Your task to perform on an android device: turn on translation in the chrome app Image 0: 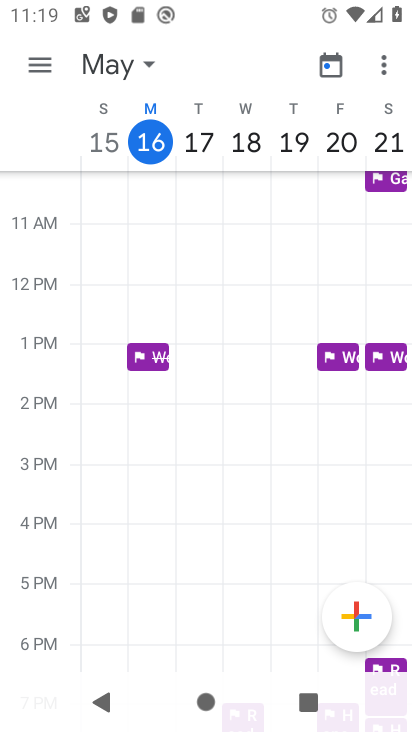
Step 0: press home button
Your task to perform on an android device: turn on translation in the chrome app Image 1: 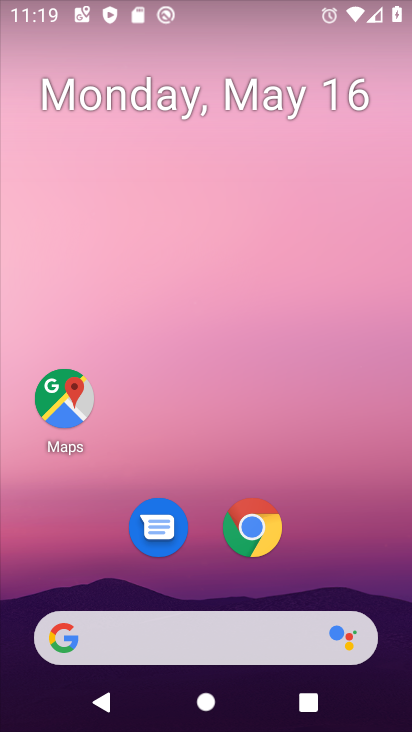
Step 1: click (257, 536)
Your task to perform on an android device: turn on translation in the chrome app Image 2: 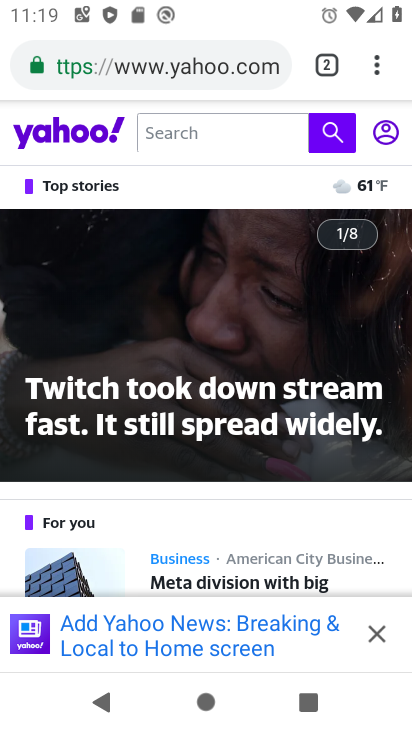
Step 2: click (385, 63)
Your task to perform on an android device: turn on translation in the chrome app Image 3: 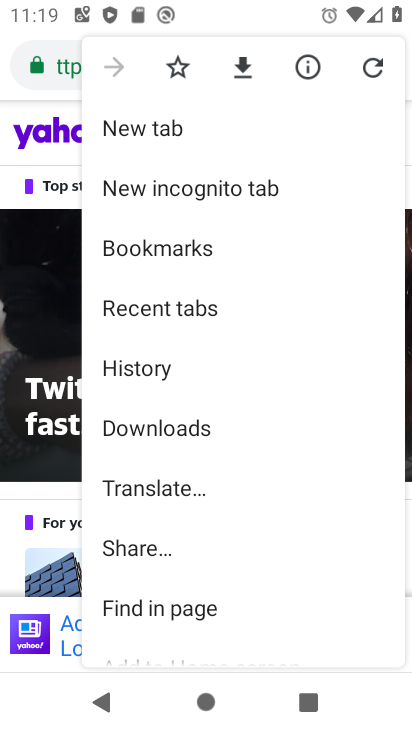
Step 3: drag from (248, 468) to (259, 194)
Your task to perform on an android device: turn on translation in the chrome app Image 4: 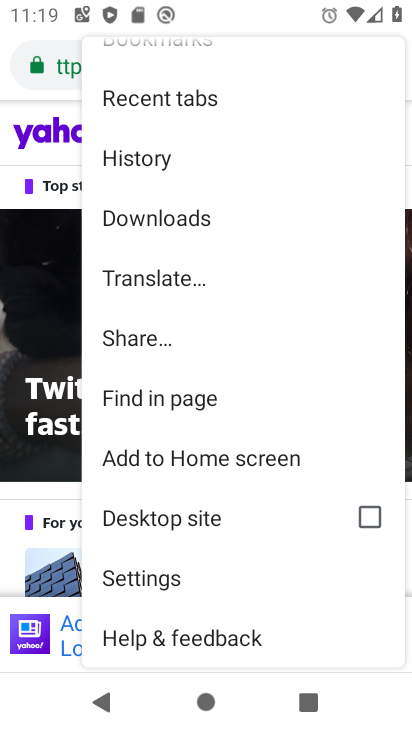
Step 4: click (147, 574)
Your task to perform on an android device: turn on translation in the chrome app Image 5: 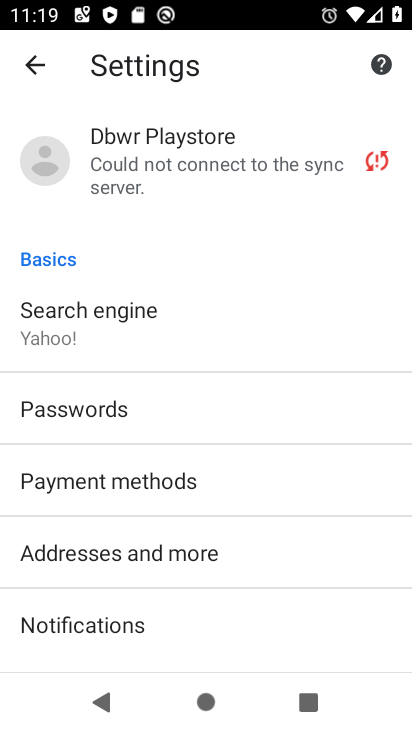
Step 5: drag from (147, 574) to (143, 181)
Your task to perform on an android device: turn on translation in the chrome app Image 6: 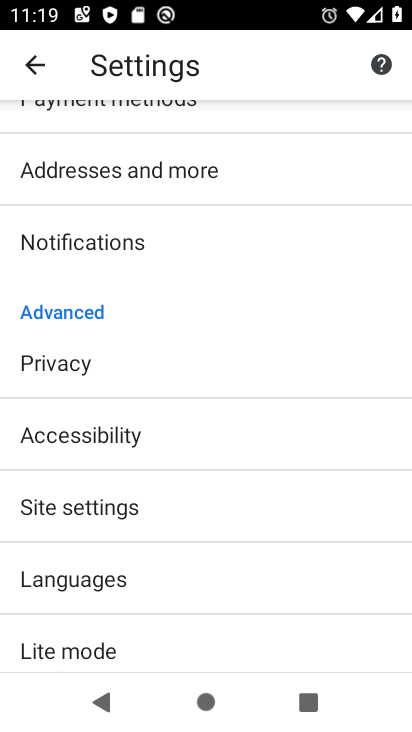
Step 6: click (93, 580)
Your task to perform on an android device: turn on translation in the chrome app Image 7: 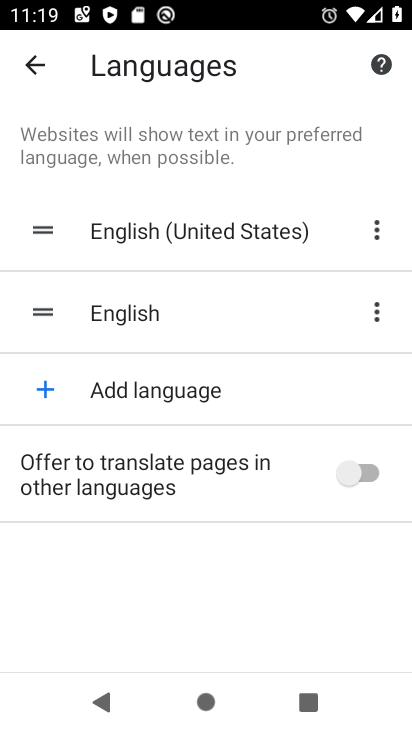
Step 7: click (353, 467)
Your task to perform on an android device: turn on translation in the chrome app Image 8: 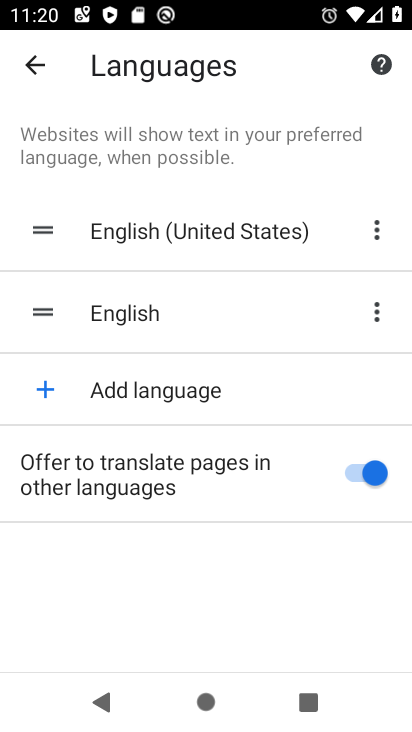
Step 8: task complete